Your task to perform on an android device: Go to settings Image 0: 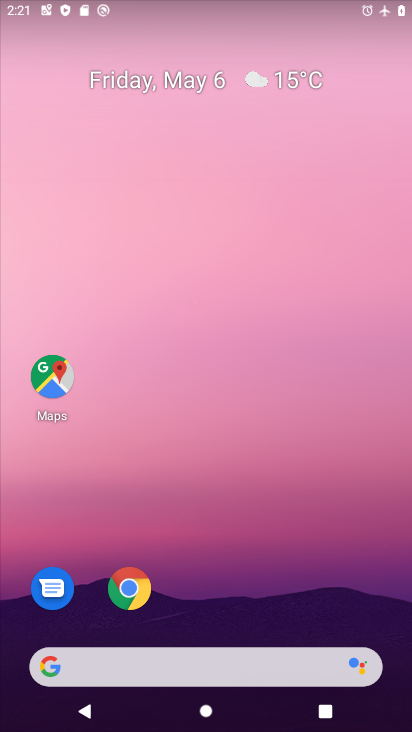
Step 0: drag from (208, 620) to (274, 140)
Your task to perform on an android device: Go to settings Image 1: 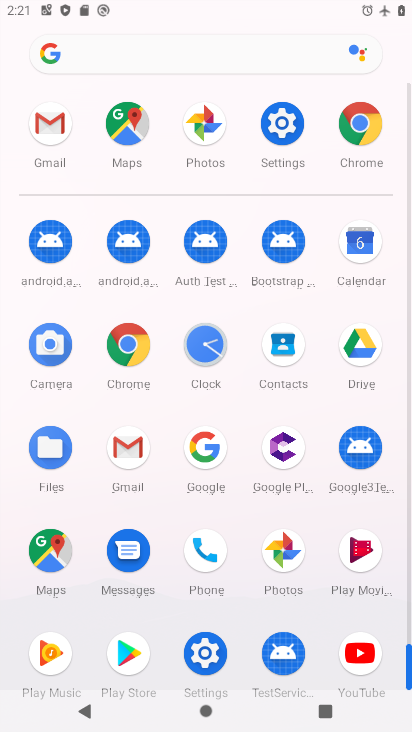
Step 1: drag from (242, 661) to (266, 213)
Your task to perform on an android device: Go to settings Image 2: 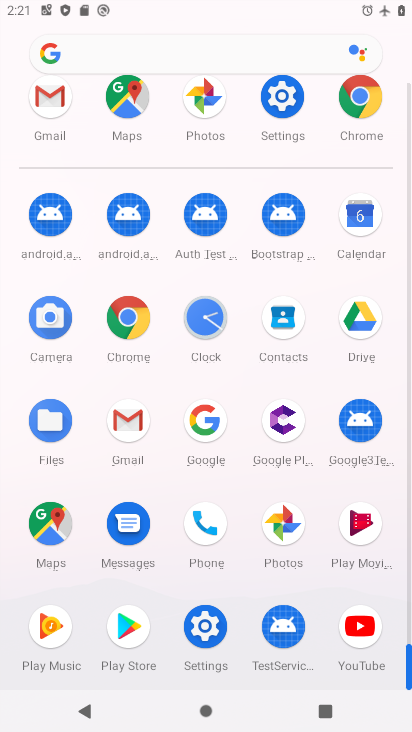
Step 2: click (198, 633)
Your task to perform on an android device: Go to settings Image 3: 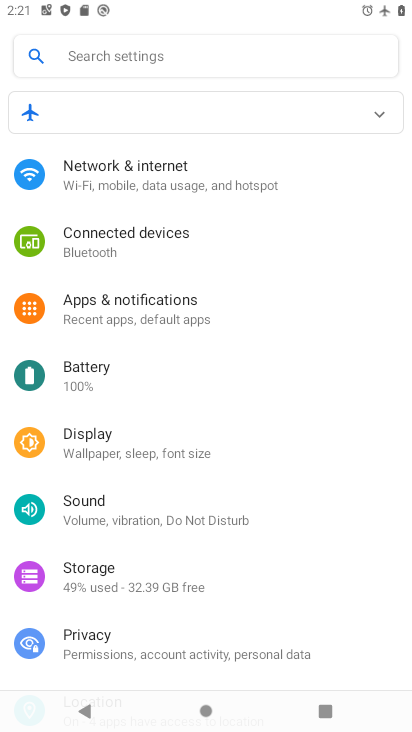
Step 3: task complete